Your task to perform on an android device: set the stopwatch Image 0: 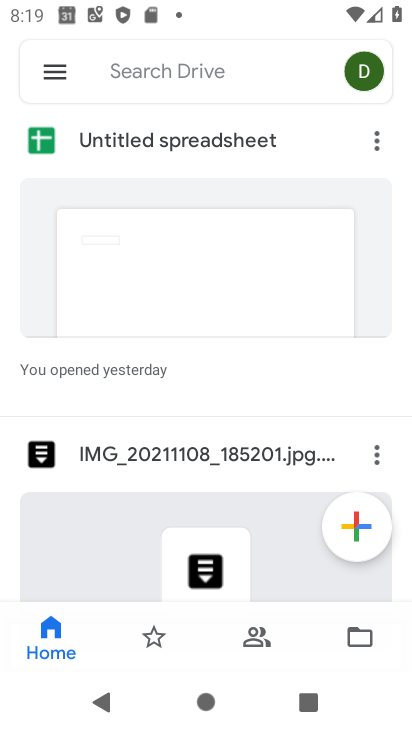
Step 0: press home button
Your task to perform on an android device: set the stopwatch Image 1: 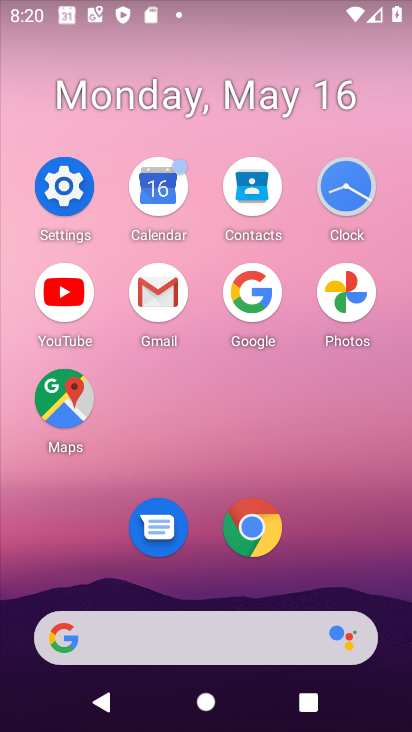
Step 1: click (350, 191)
Your task to perform on an android device: set the stopwatch Image 2: 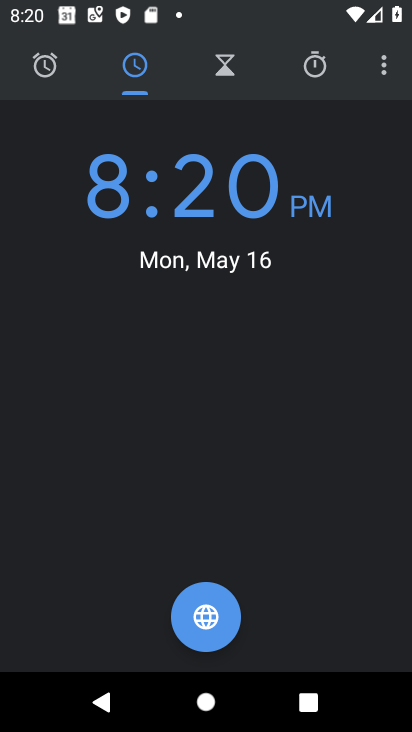
Step 2: click (302, 63)
Your task to perform on an android device: set the stopwatch Image 3: 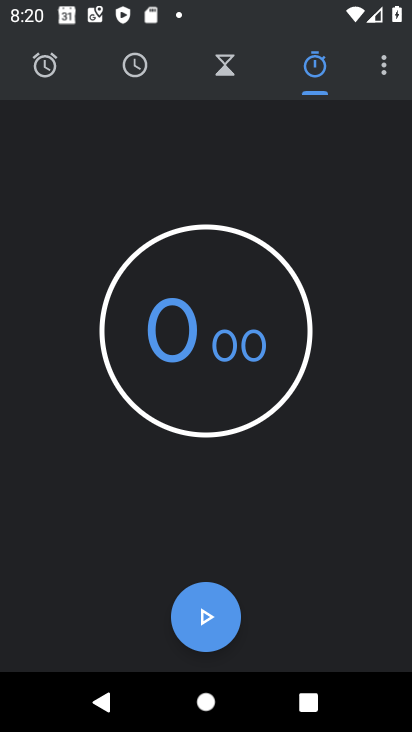
Step 3: click (208, 600)
Your task to perform on an android device: set the stopwatch Image 4: 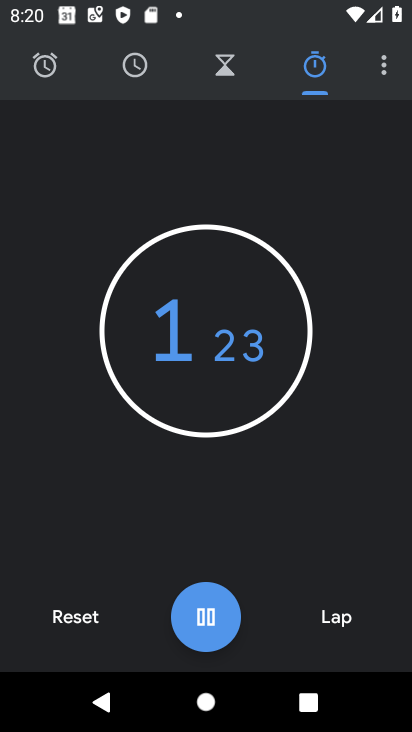
Step 4: task complete